Your task to perform on an android device: Is it going to rain this weekend? Image 0: 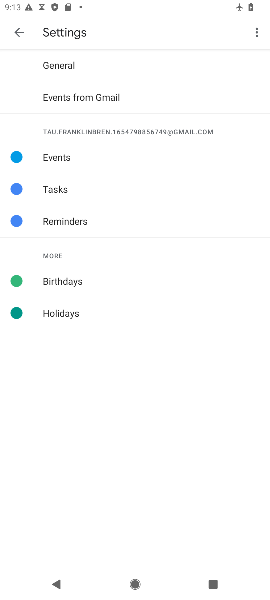
Step 0: press home button
Your task to perform on an android device: Is it going to rain this weekend? Image 1: 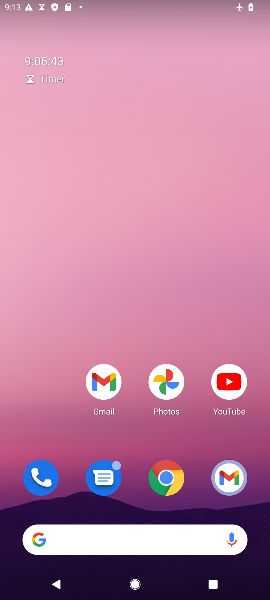
Step 1: click (162, 479)
Your task to perform on an android device: Is it going to rain this weekend? Image 2: 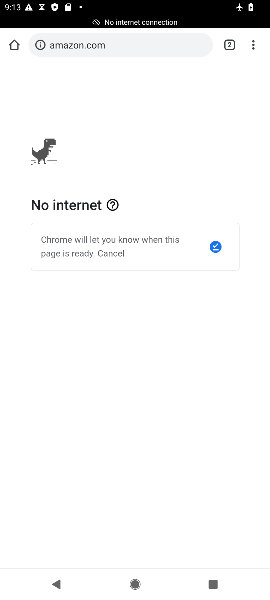
Step 2: task complete